Your task to perform on an android device: Go to location settings Image 0: 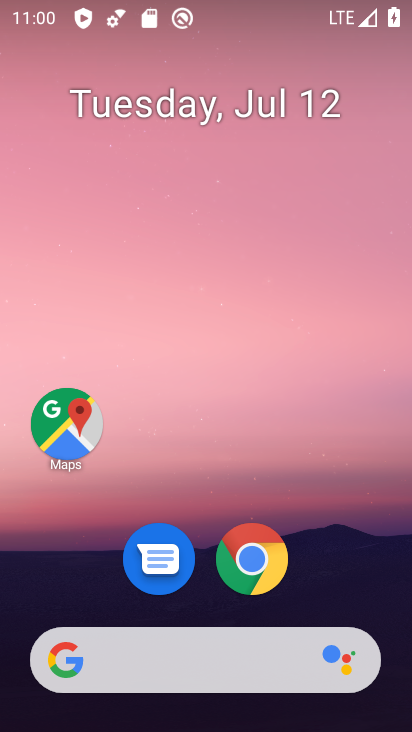
Step 0: drag from (214, 652) to (148, 66)
Your task to perform on an android device: Go to location settings Image 1: 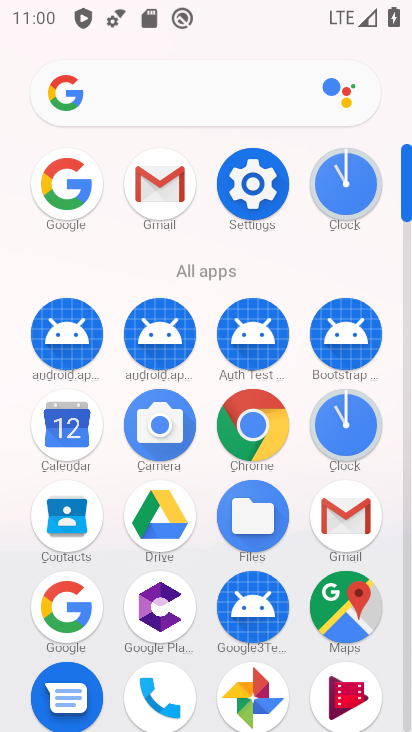
Step 1: click (243, 191)
Your task to perform on an android device: Go to location settings Image 2: 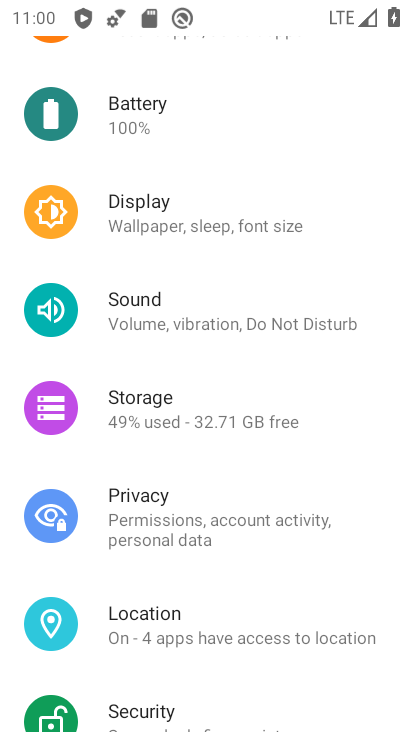
Step 2: click (175, 638)
Your task to perform on an android device: Go to location settings Image 3: 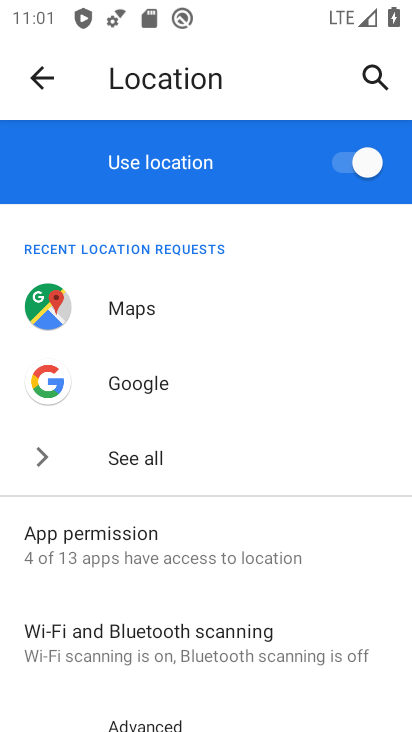
Step 3: task complete